Your task to perform on an android device: empty trash in google photos Image 0: 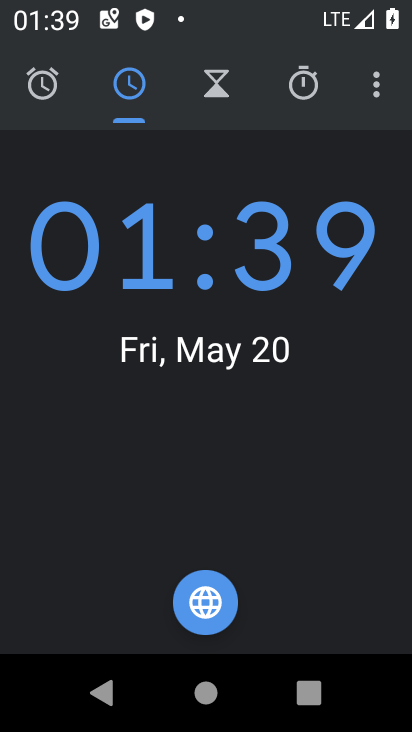
Step 0: press home button
Your task to perform on an android device: empty trash in google photos Image 1: 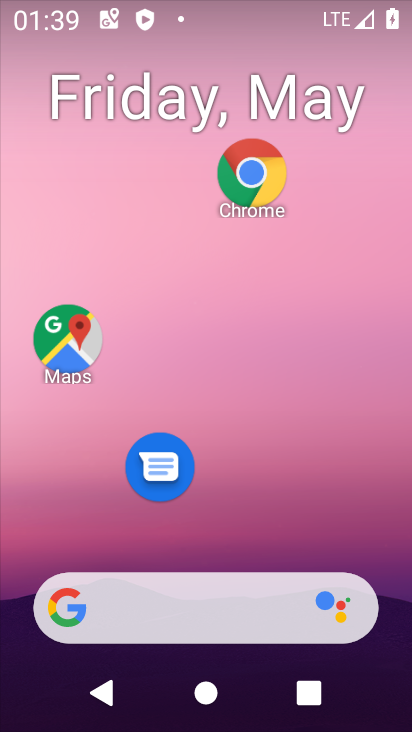
Step 1: drag from (253, 610) to (222, 172)
Your task to perform on an android device: empty trash in google photos Image 2: 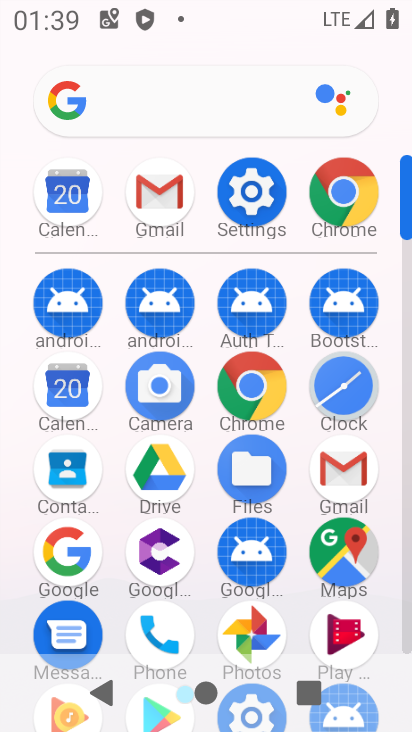
Step 2: click (239, 611)
Your task to perform on an android device: empty trash in google photos Image 3: 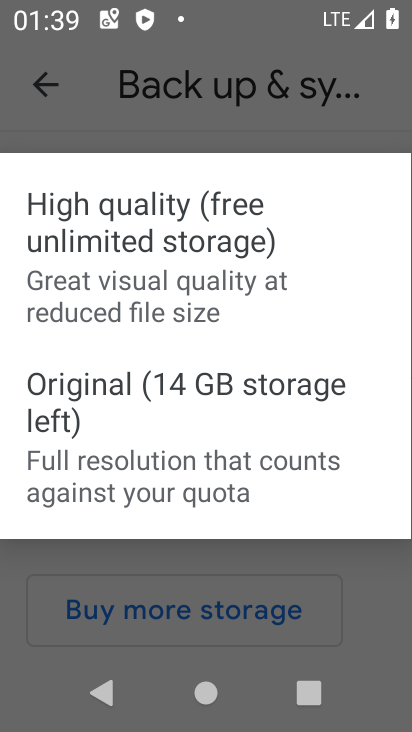
Step 3: press back button
Your task to perform on an android device: empty trash in google photos Image 4: 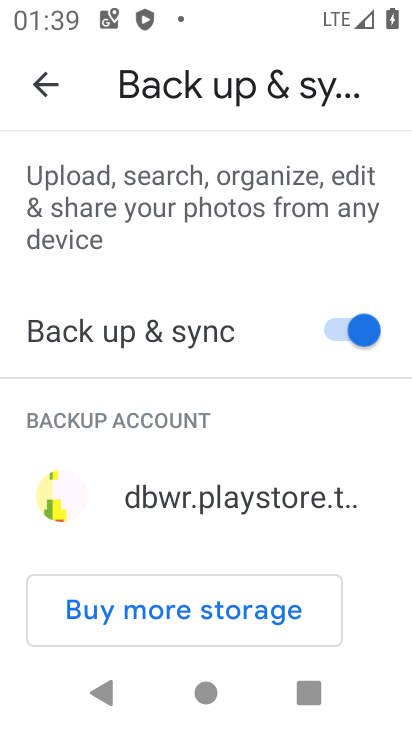
Step 4: click (52, 93)
Your task to perform on an android device: empty trash in google photos Image 5: 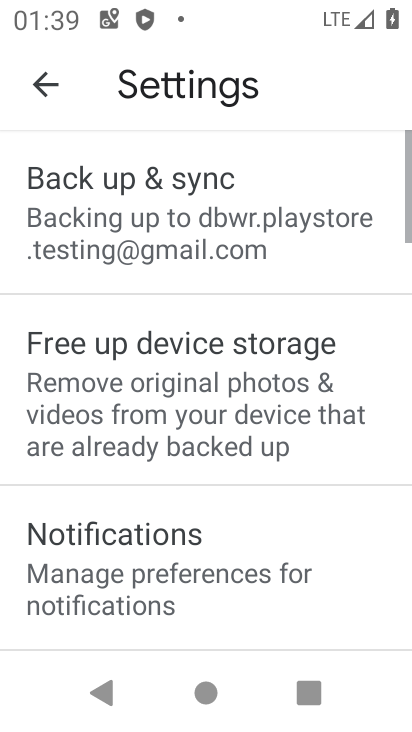
Step 5: click (52, 93)
Your task to perform on an android device: empty trash in google photos Image 6: 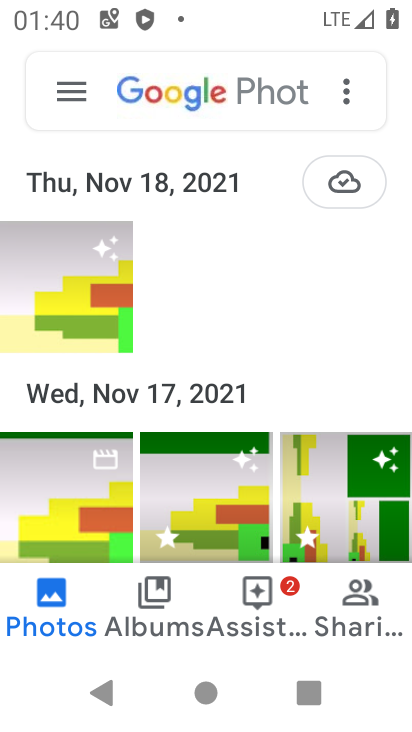
Step 6: click (56, 91)
Your task to perform on an android device: empty trash in google photos Image 7: 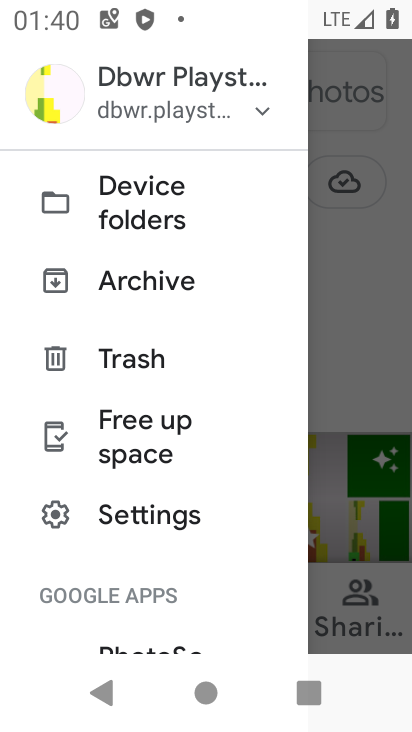
Step 7: click (142, 371)
Your task to perform on an android device: empty trash in google photos Image 8: 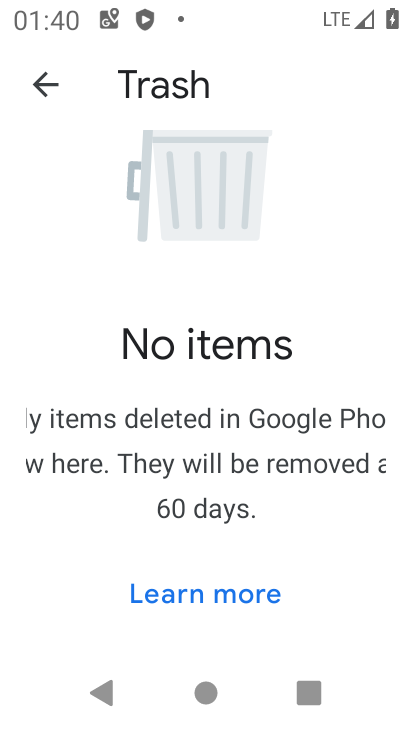
Step 8: task complete